Your task to perform on an android device: Turn off the flashlight Image 0: 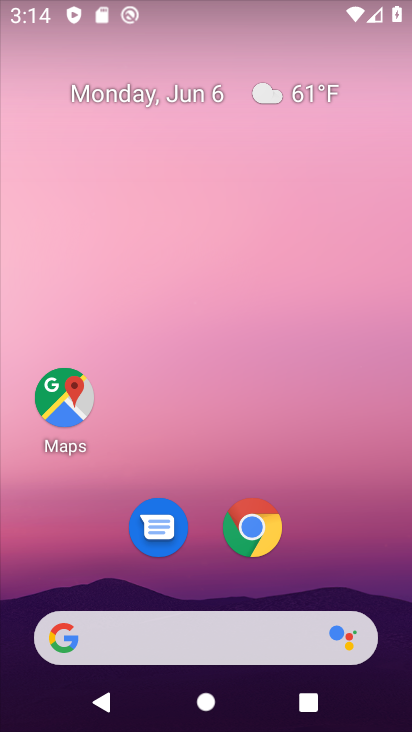
Step 0: drag from (339, 503) to (207, 49)
Your task to perform on an android device: Turn off the flashlight Image 1: 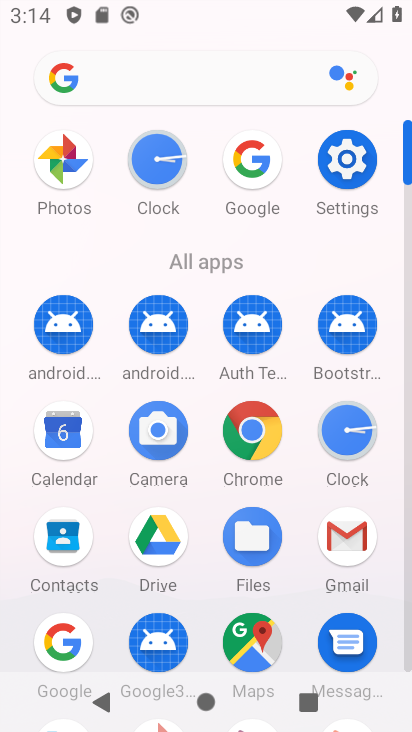
Step 1: click (346, 159)
Your task to perform on an android device: Turn off the flashlight Image 2: 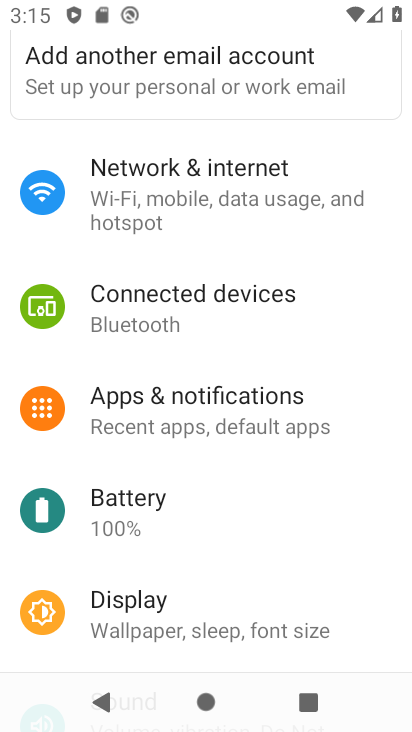
Step 2: drag from (189, 451) to (234, 341)
Your task to perform on an android device: Turn off the flashlight Image 3: 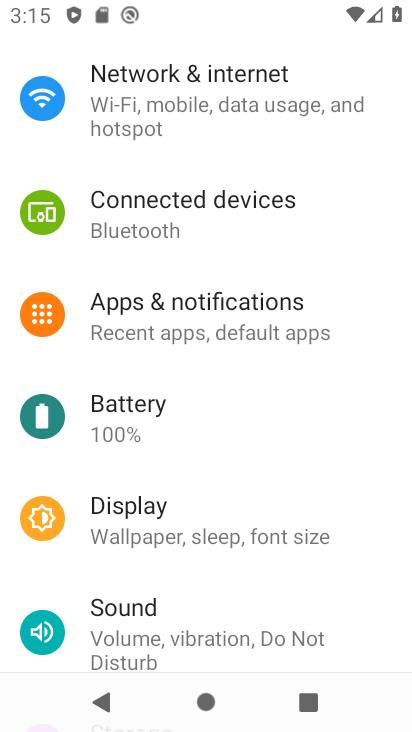
Step 3: drag from (213, 513) to (261, 406)
Your task to perform on an android device: Turn off the flashlight Image 4: 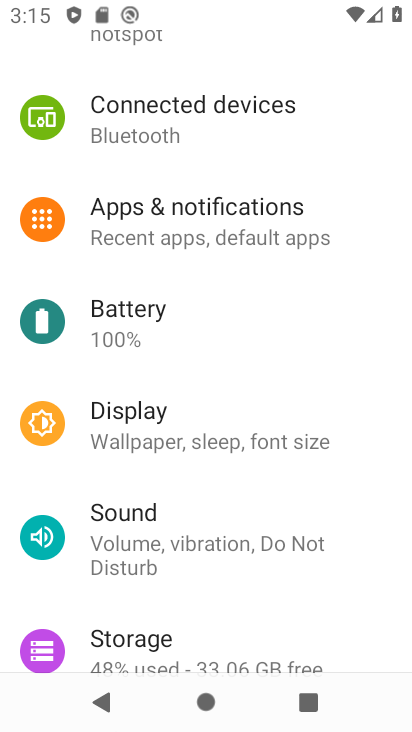
Step 4: drag from (212, 570) to (281, 474)
Your task to perform on an android device: Turn off the flashlight Image 5: 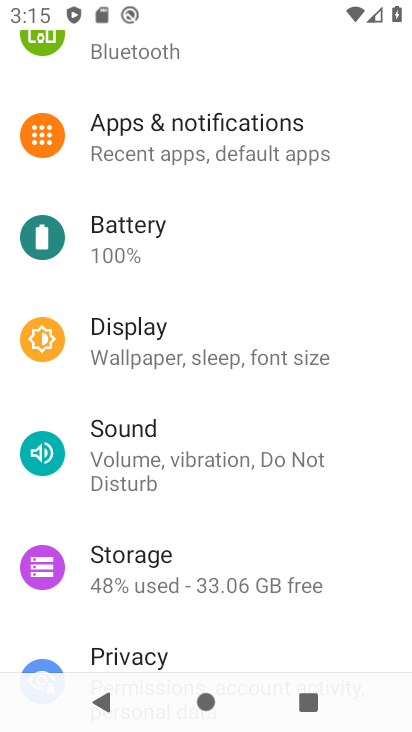
Step 5: drag from (202, 599) to (277, 437)
Your task to perform on an android device: Turn off the flashlight Image 6: 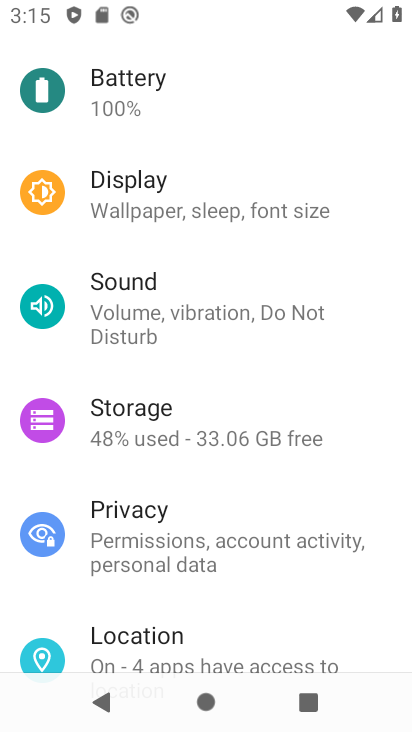
Step 6: drag from (229, 578) to (267, 463)
Your task to perform on an android device: Turn off the flashlight Image 7: 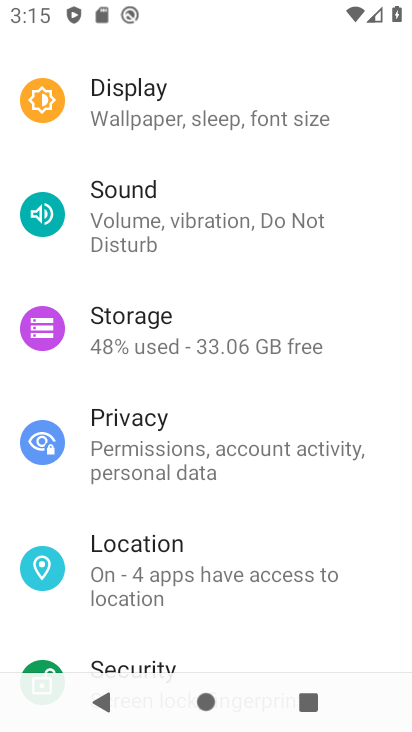
Step 7: drag from (211, 616) to (293, 482)
Your task to perform on an android device: Turn off the flashlight Image 8: 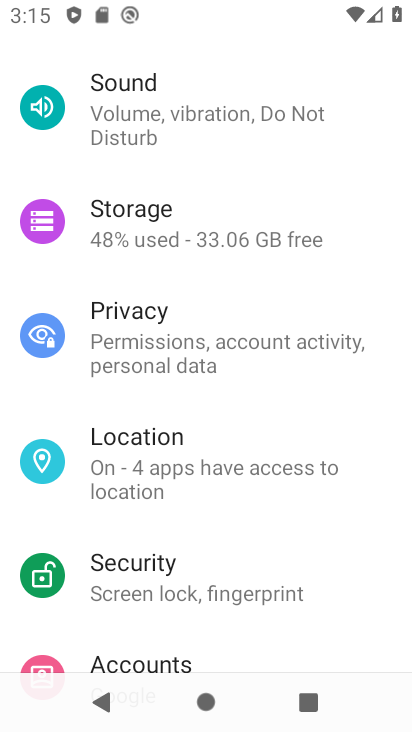
Step 8: drag from (245, 565) to (311, 365)
Your task to perform on an android device: Turn off the flashlight Image 9: 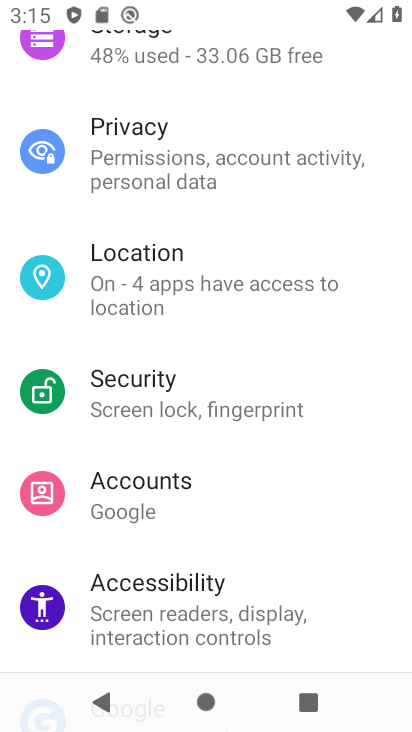
Step 9: drag from (193, 611) to (270, 431)
Your task to perform on an android device: Turn off the flashlight Image 10: 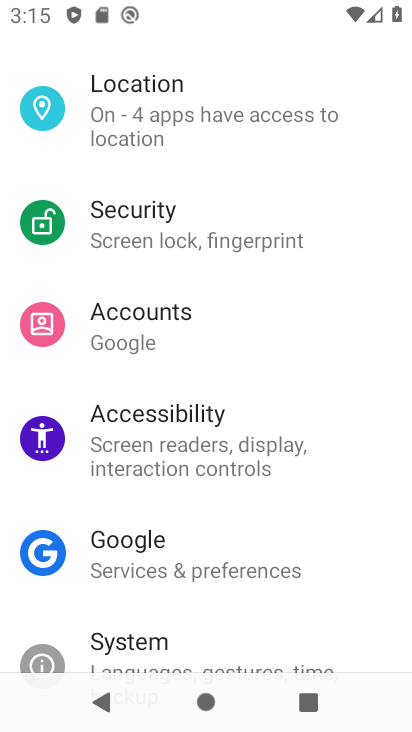
Step 10: click (173, 632)
Your task to perform on an android device: Turn off the flashlight Image 11: 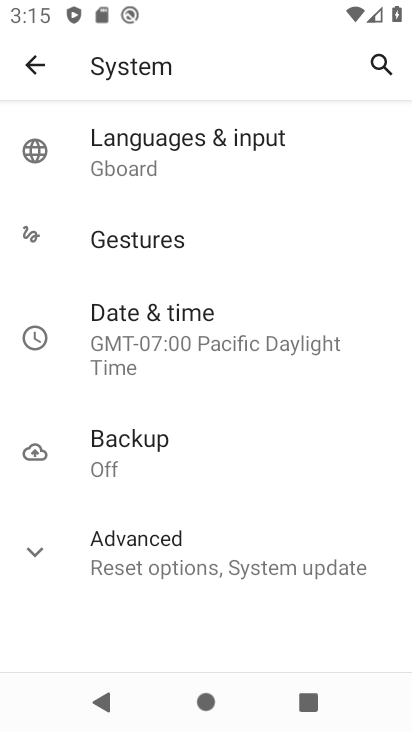
Step 11: click (184, 558)
Your task to perform on an android device: Turn off the flashlight Image 12: 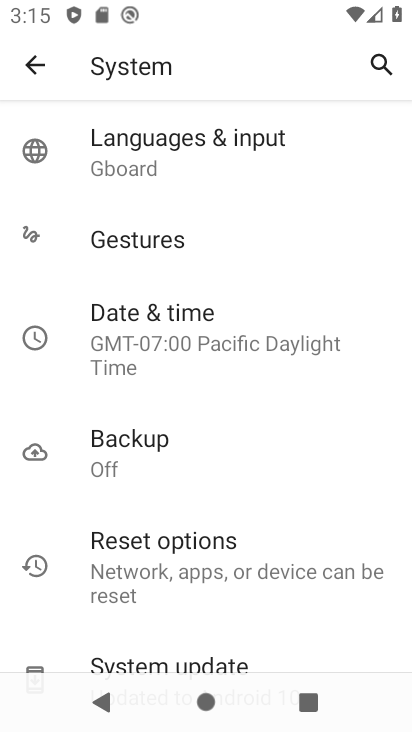
Step 12: task complete